Your task to perform on an android device: Open ESPN.com Image 0: 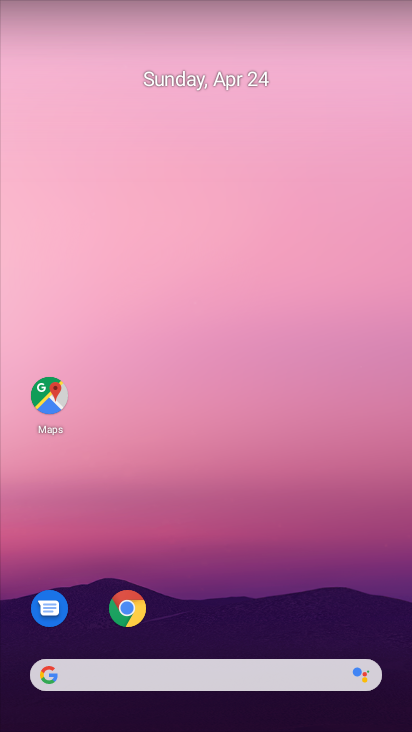
Step 0: click (189, 668)
Your task to perform on an android device: Open ESPN.com Image 1: 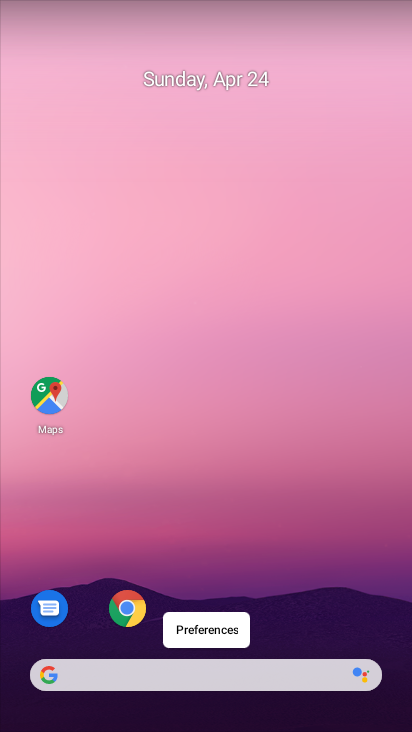
Step 1: click (195, 684)
Your task to perform on an android device: Open ESPN.com Image 2: 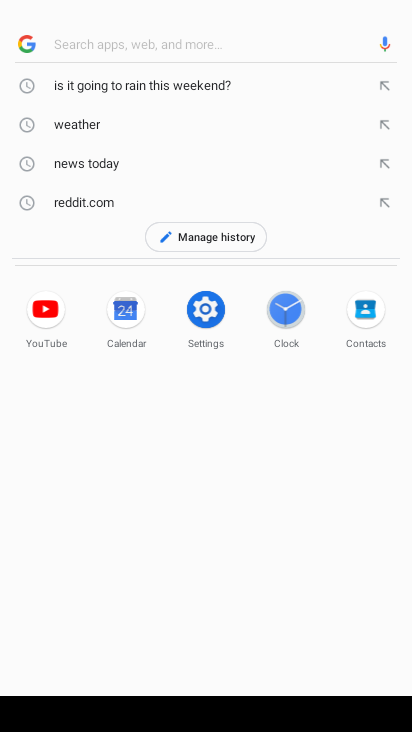
Step 2: type "espn.com"
Your task to perform on an android device: Open ESPN.com Image 3: 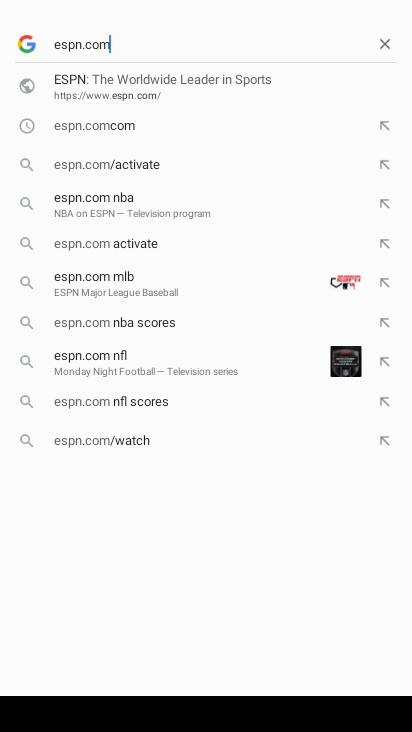
Step 3: click (190, 78)
Your task to perform on an android device: Open ESPN.com Image 4: 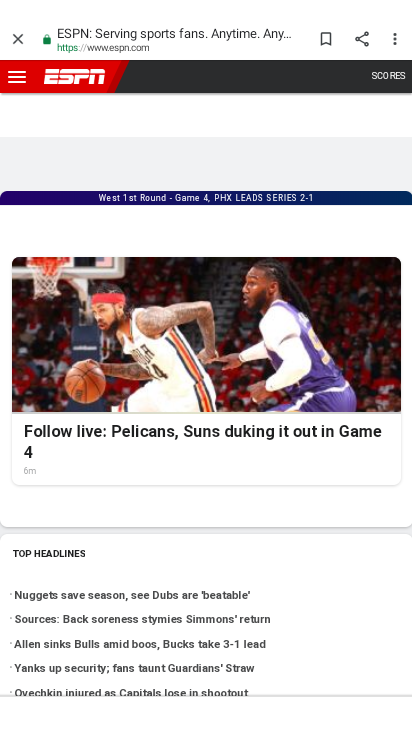
Step 4: task complete